Your task to perform on an android device: Go to privacy settings Image 0: 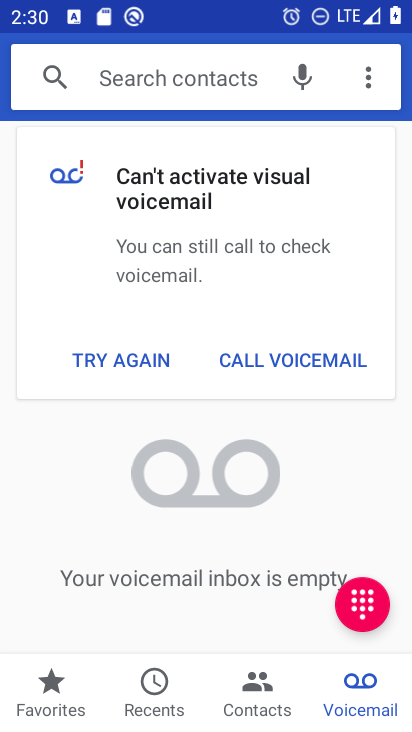
Step 0: press home button
Your task to perform on an android device: Go to privacy settings Image 1: 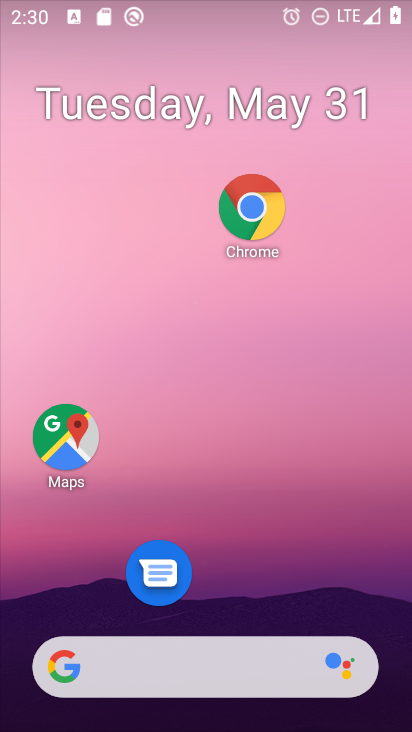
Step 1: drag from (193, 630) to (195, 53)
Your task to perform on an android device: Go to privacy settings Image 2: 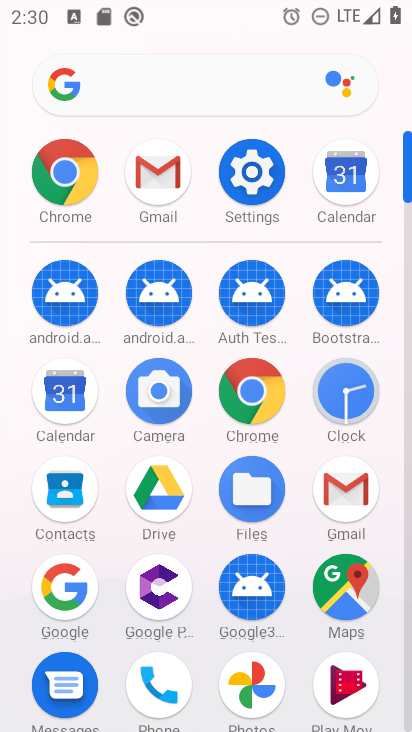
Step 2: click (265, 184)
Your task to perform on an android device: Go to privacy settings Image 3: 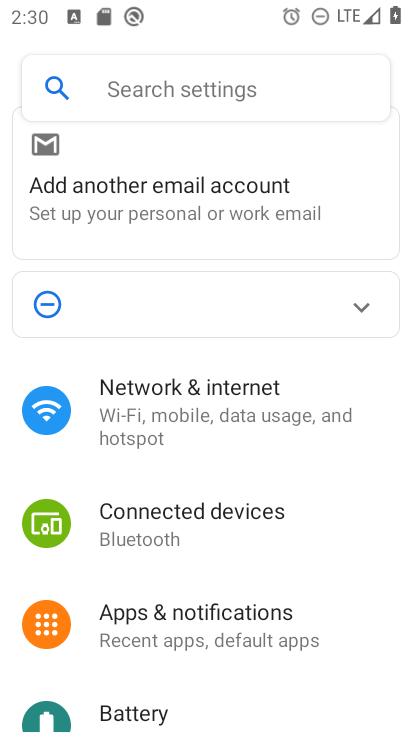
Step 3: drag from (89, 554) to (96, 91)
Your task to perform on an android device: Go to privacy settings Image 4: 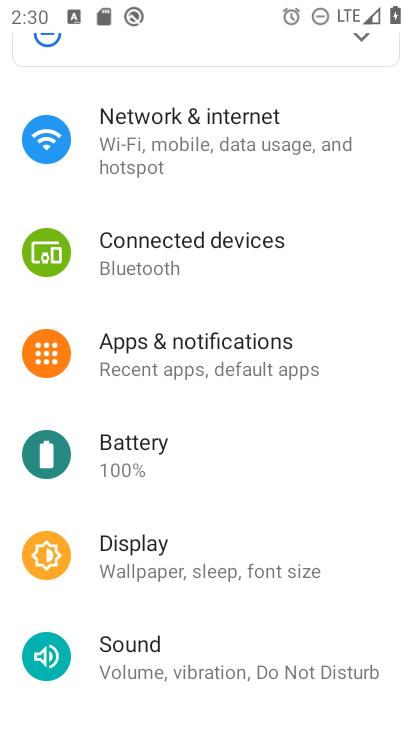
Step 4: drag from (232, 412) to (232, 236)
Your task to perform on an android device: Go to privacy settings Image 5: 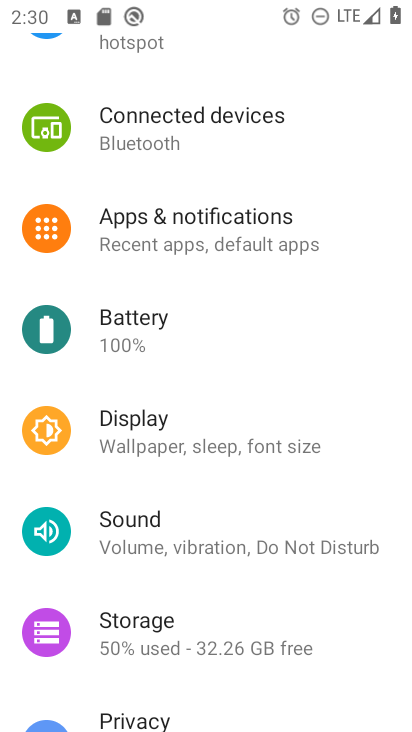
Step 5: drag from (218, 602) to (148, 225)
Your task to perform on an android device: Go to privacy settings Image 6: 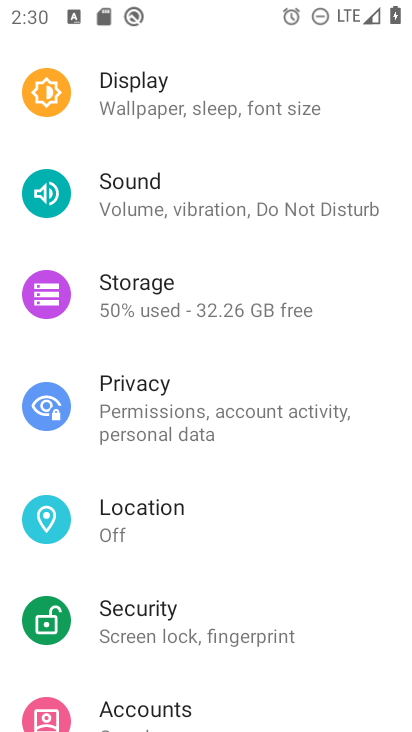
Step 6: click (181, 420)
Your task to perform on an android device: Go to privacy settings Image 7: 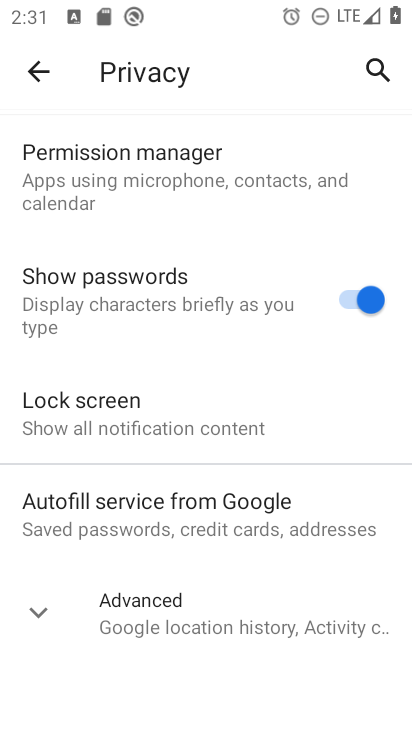
Step 7: task complete